Your task to perform on an android device: Open Chrome and go to settings Image 0: 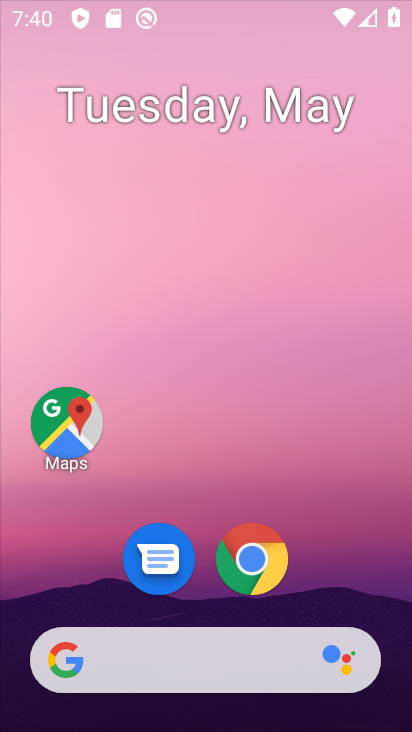
Step 0: drag from (361, 507) to (336, 40)
Your task to perform on an android device: Open Chrome and go to settings Image 1: 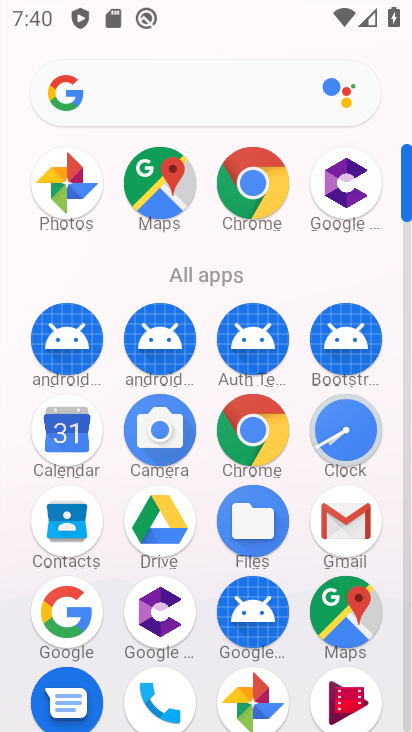
Step 1: click (268, 175)
Your task to perform on an android device: Open Chrome and go to settings Image 2: 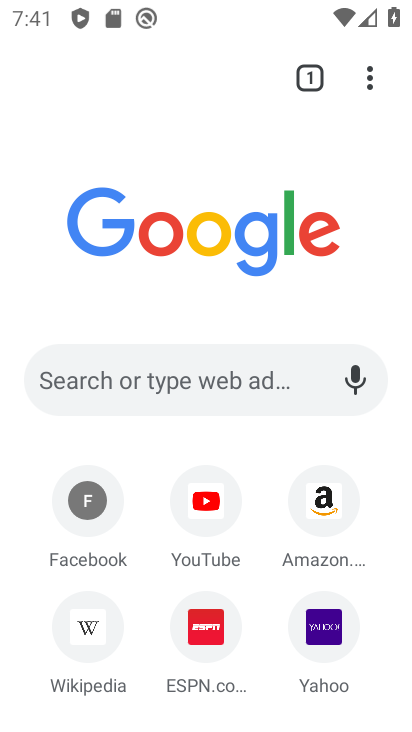
Step 2: task complete